Your task to perform on an android device: Turn on the flashlight Image 0: 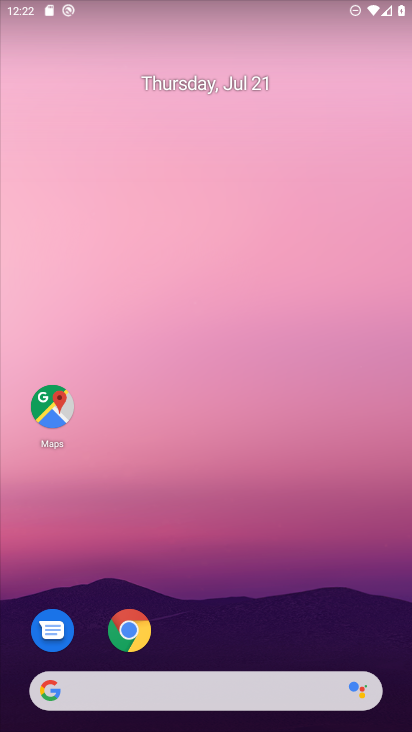
Step 0: drag from (170, 642) to (194, 173)
Your task to perform on an android device: Turn on the flashlight Image 1: 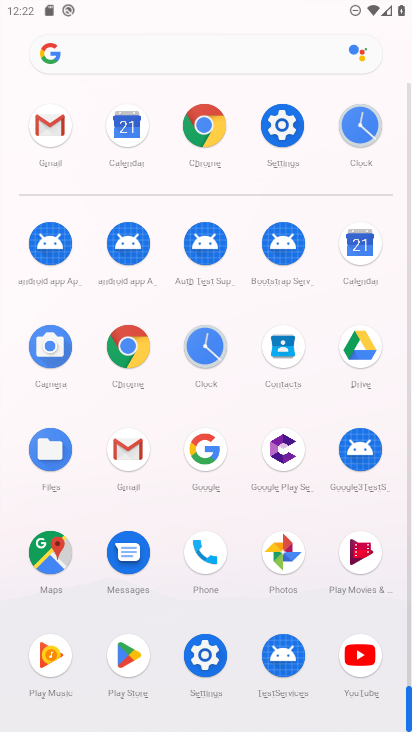
Step 1: click (282, 129)
Your task to perform on an android device: Turn on the flashlight Image 2: 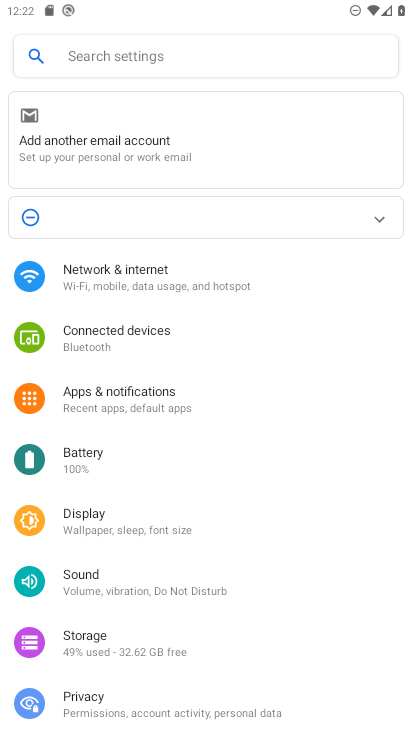
Step 2: click (151, 59)
Your task to perform on an android device: Turn on the flashlight Image 3: 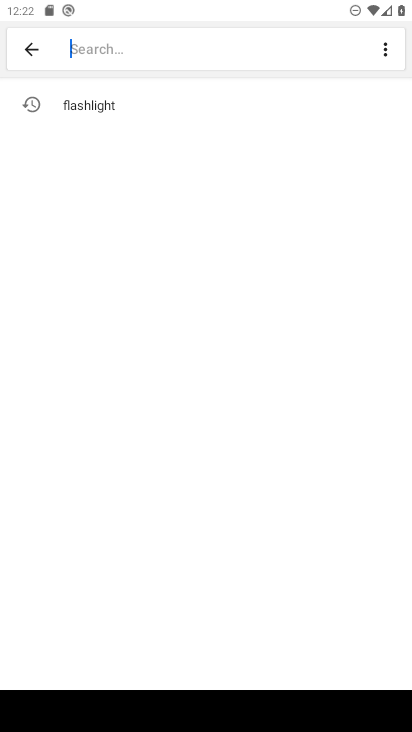
Step 3: click (59, 98)
Your task to perform on an android device: Turn on the flashlight Image 4: 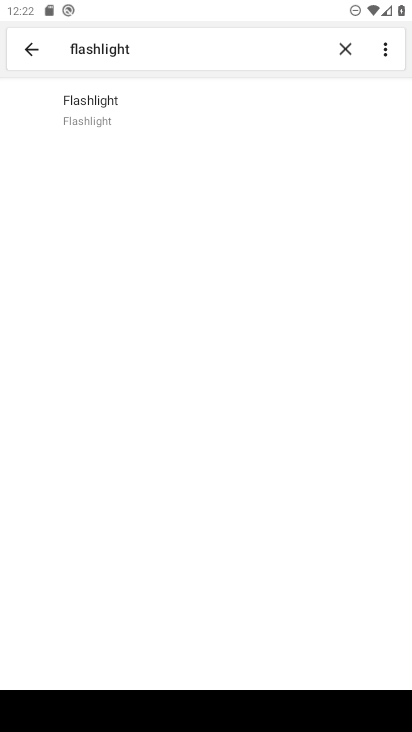
Step 4: task complete